Your task to perform on an android device: Go to Amazon Image 0: 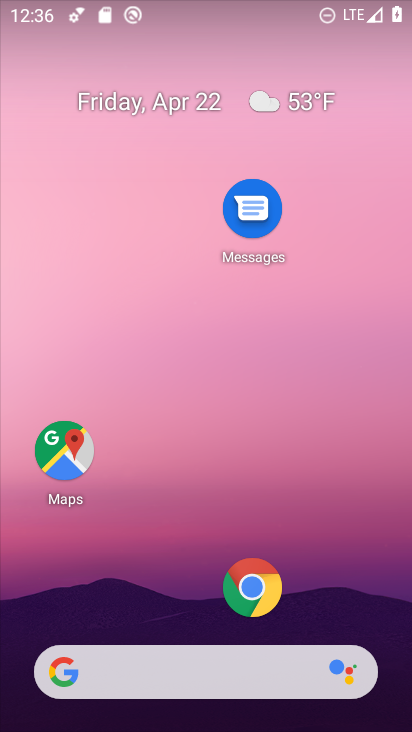
Step 0: click (254, 578)
Your task to perform on an android device: Go to Amazon Image 1: 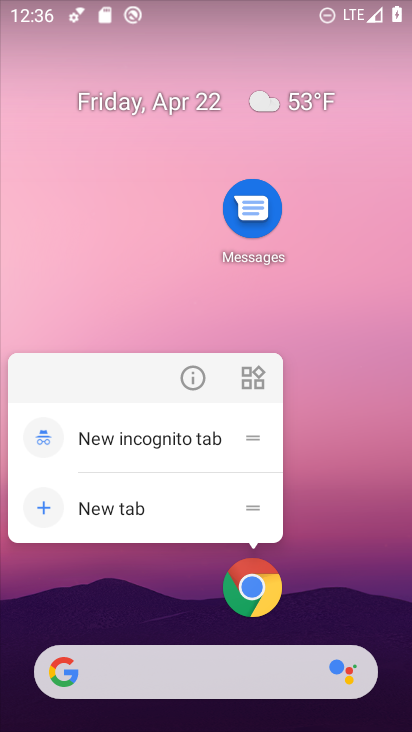
Step 1: click (202, 375)
Your task to perform on an android device: Go to Amazon Image 2: 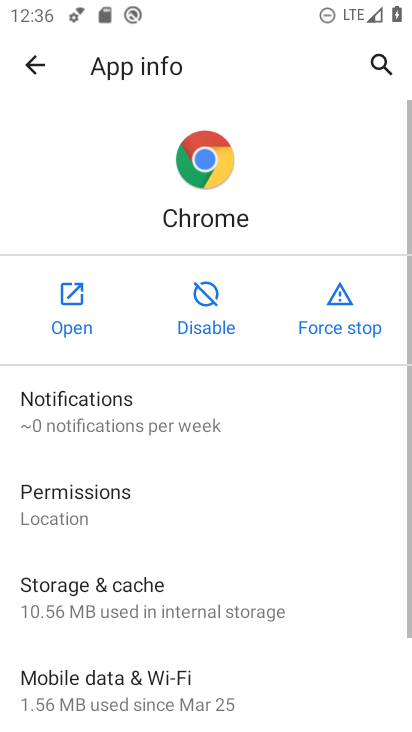
Step 2: click (84, 307)
Your task to perform on an android device: Go to Amazon Image 3: 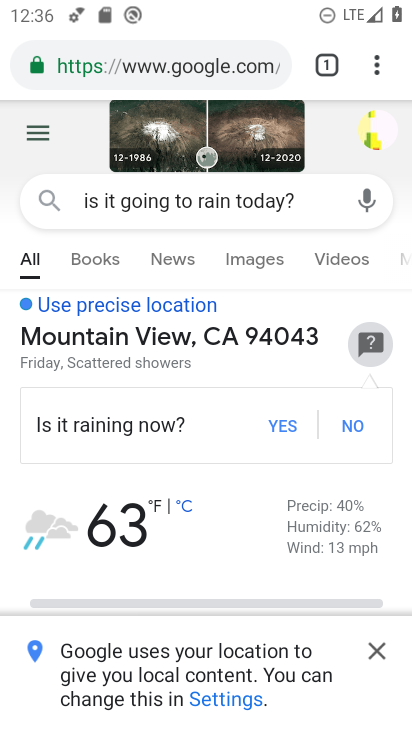
Step 3: click (123, 67)
Your task to perform on an android device: Go to Amazon Image 4: 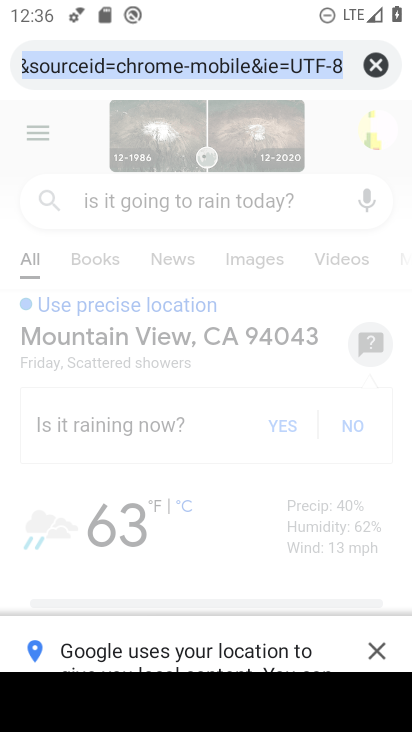
Step 4: type "amazon"
Your task to perform on an android device: Go to Amazon Image 5: 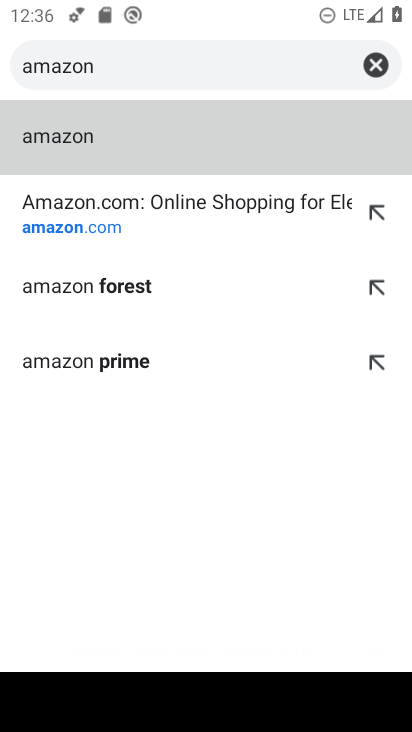
Step 5: click (100, 153)
Your task to perform on an android device: Go to Amazon Image 6: 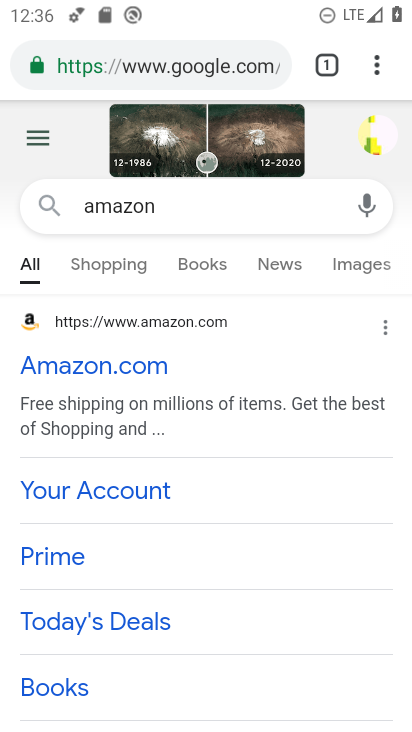
Step 6: task complete